Your task to perform on an android device: Open the phone app and click the voicemail tab. Image 0: 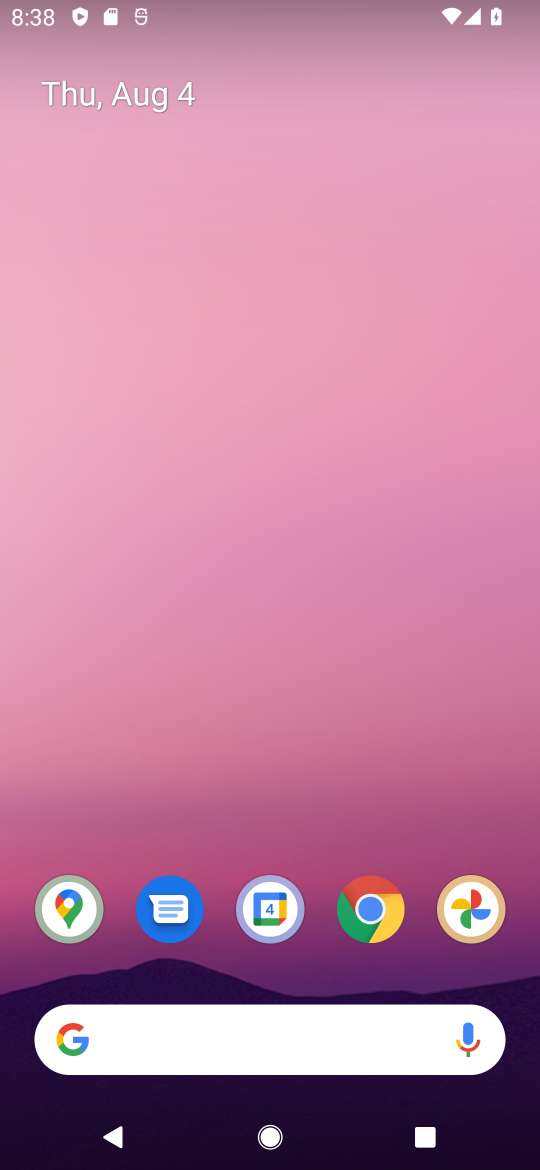
Step 0: press home button
Your task to perform on an android device: Open the phone app and click the voicemail tab. Image 1: 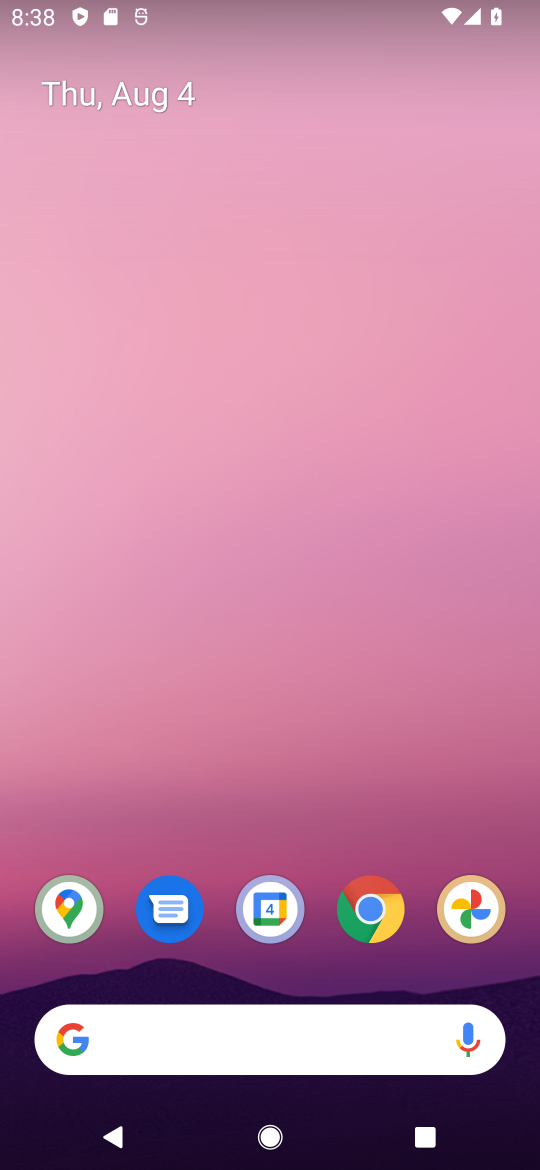
Step 1: drag from (328, 817) to (324, 276)
Your task to perform on an android device: Open the phone app and click the voicemail tab. Image 2: 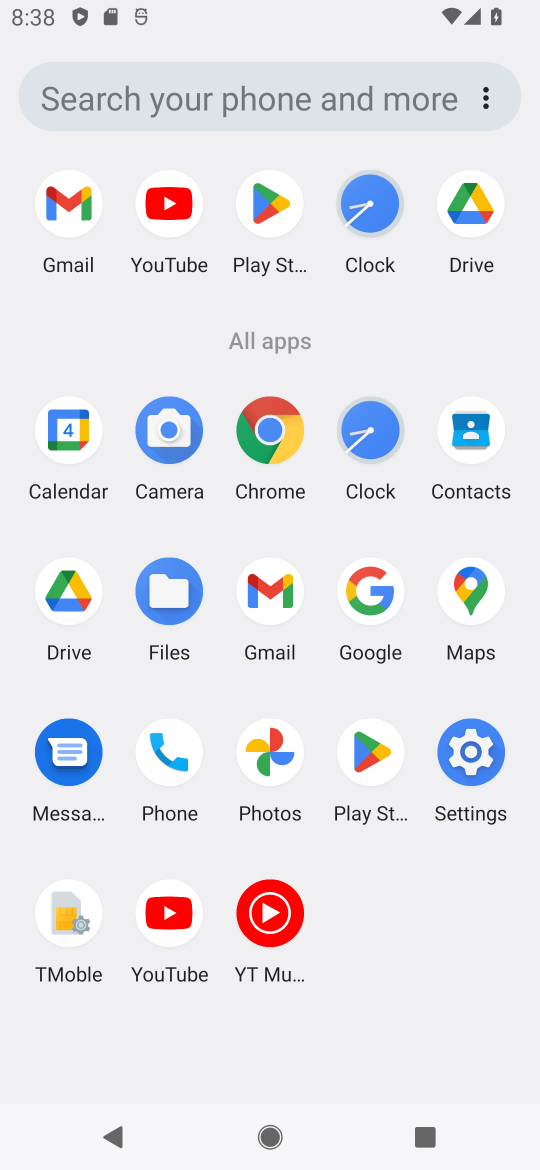
Step 2: click (169, 764)
Your task to perform on an android device: Open the phone app and click the voicemail tab. Image 3: 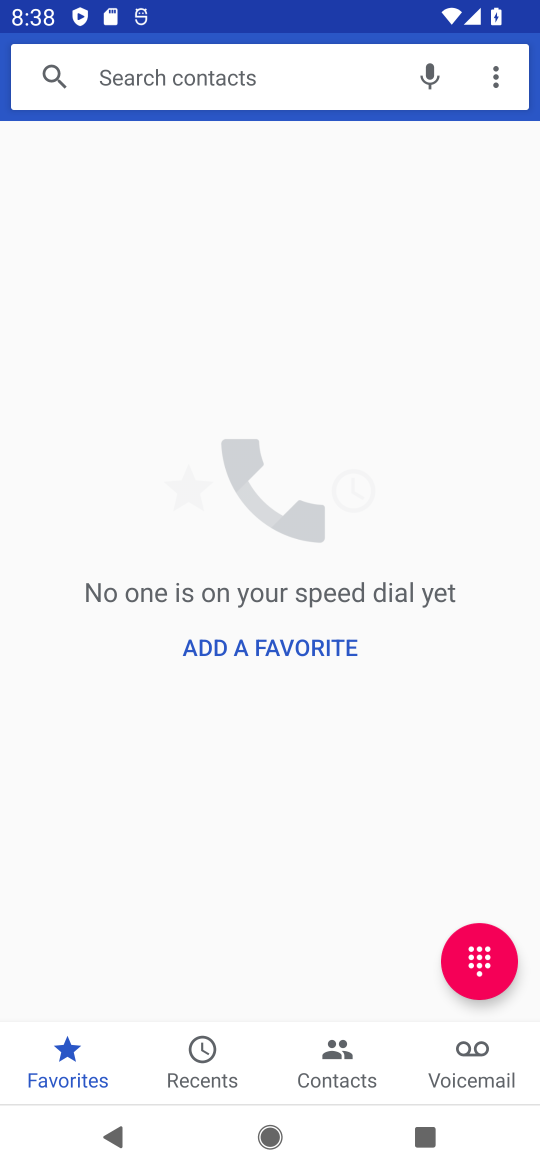
Step 3: click (478, 1070)
Your task to perform on an android device: Open the phone app and click the voicemail tab. Image 4: 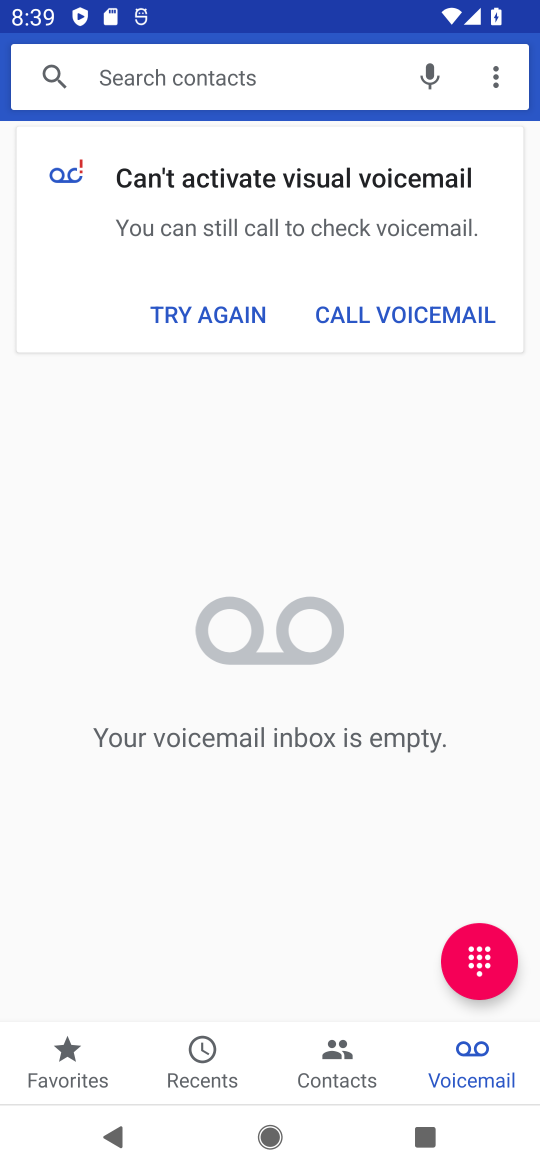
Step 4: task complete